Your task to perform on an android device: turn on showing notifications on the lock screen Image 0: 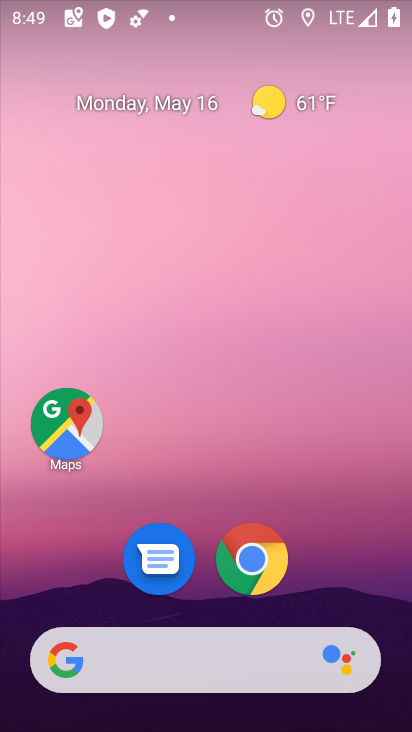
Step 0: drag from (358, 581) to (331, 105)
Your task to perform on an android device: turn on showing notifications on the lock screen Image 1: 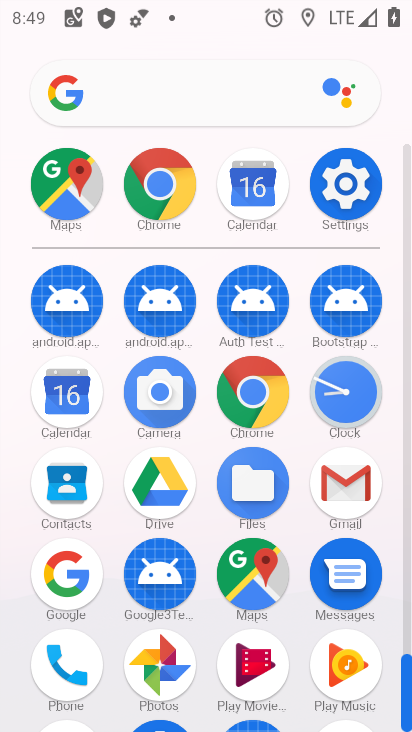
Step 1: click (356, 208)
Your task to perform on an android device: turn on showing notifications on the lock screen Image 2: 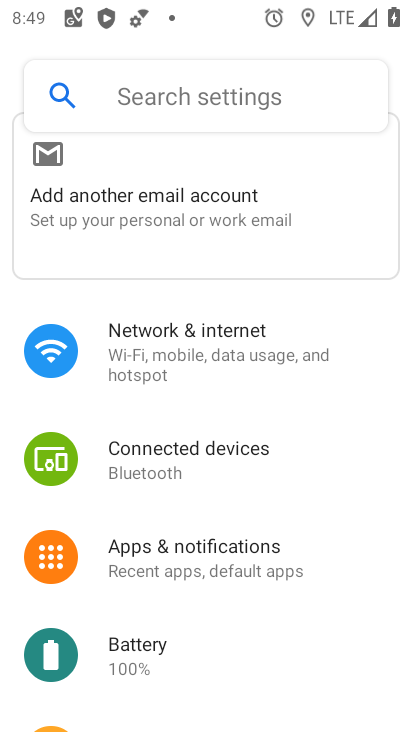
Step 2: click (217, 551)
Your task to perform on an android device: turn on showing notifications on the lock screen Image 3: 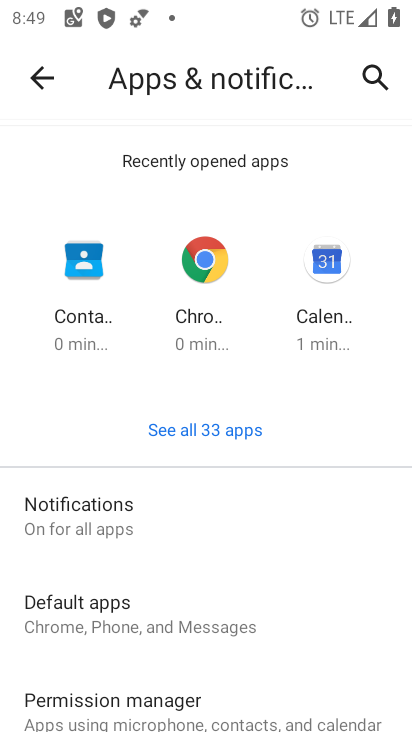
Step 3: click (208, 513)
Your task to perform on an android device: turn on showing notifications on the lock screen Image 4: 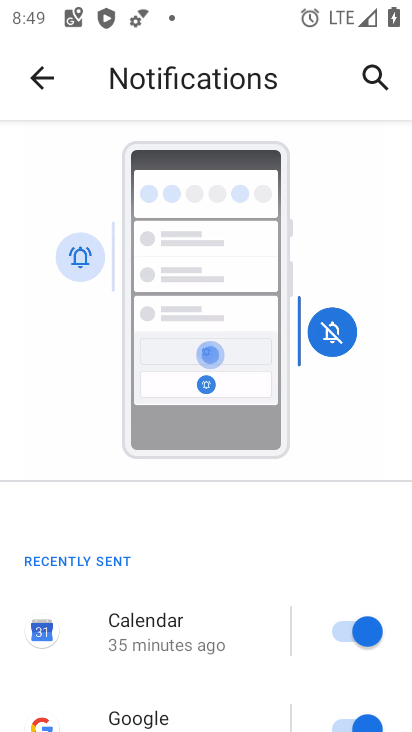
Step 4: drag from (203, 674) to (223, 247)
Your task to perform on an android device: turn on showing notifications on the lock screen Image 5: 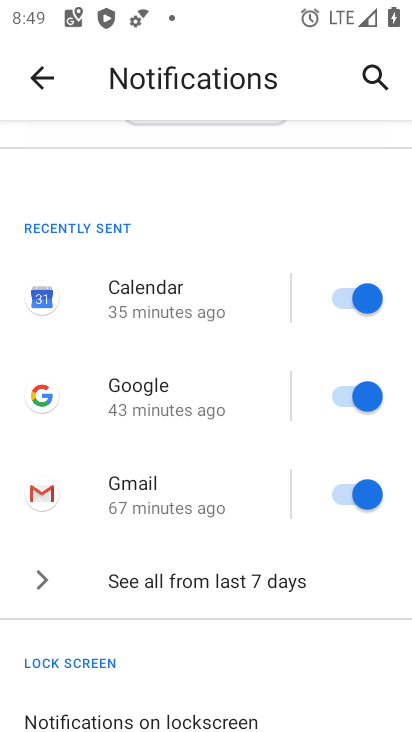
Step 5: drag from (215, 658) to (229, 305)
Your task to perform on an android device: turn on showing notifications on the lock screen Image 6: 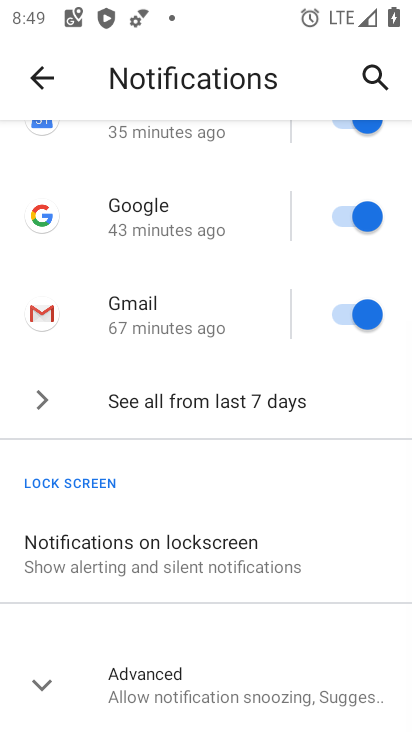
Step 6: click (222, 554)
Your task to perform on an android device: turn on showing notifications on the lock screen Image 7: 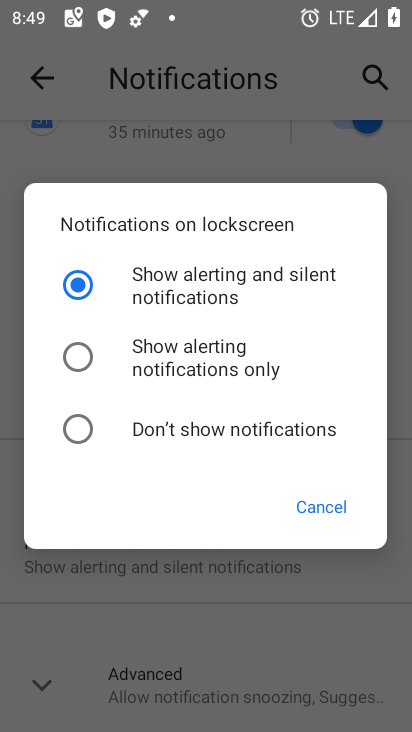
Step 7: task complete